Your task to perform on an android device: turn on priority inbox in the gmail app Image 0: 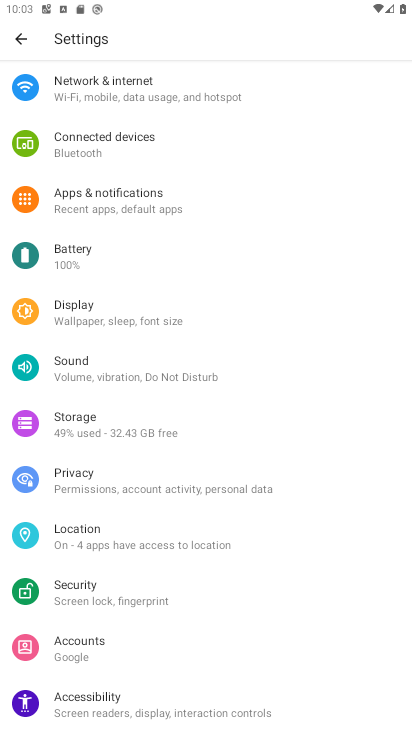
Step 0: press home button
Your task to perform on an android device: turn on priority inbox in the gmail app Image 1: 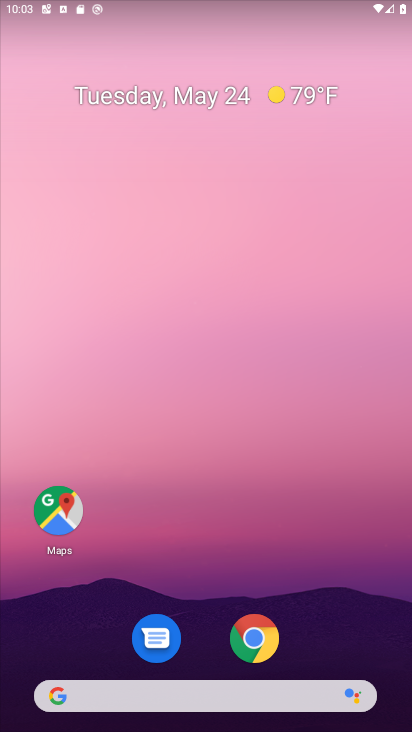
Step 1: drag from (250, 720) to (228, 5)
Your task to perform on an android device: turn on priority inbox in the gmail app Image 2: 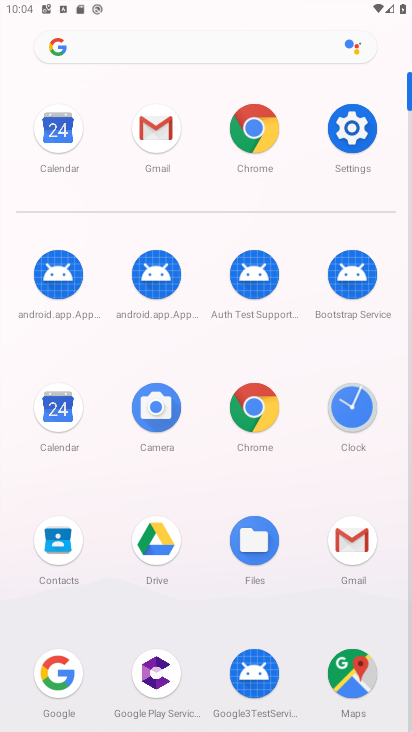
Step 2: click (351, 551)
Your task to perform on an android device: turn on priority inbox in the gmail app Image 3: 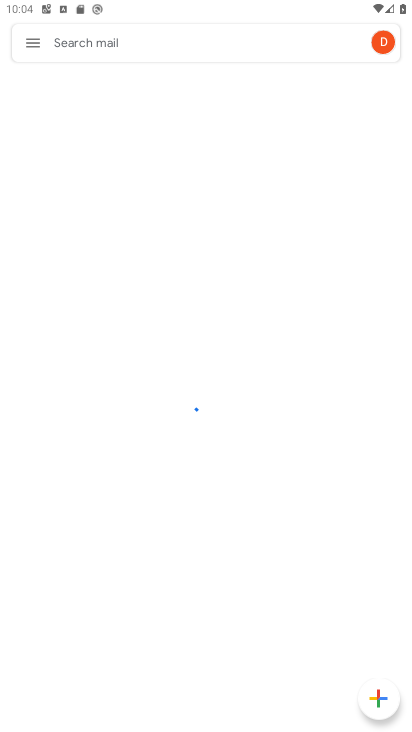
Step 3: click (30, 46)
Your task to perform on an android device: turn on priority inbox in the gmail app Image 4: 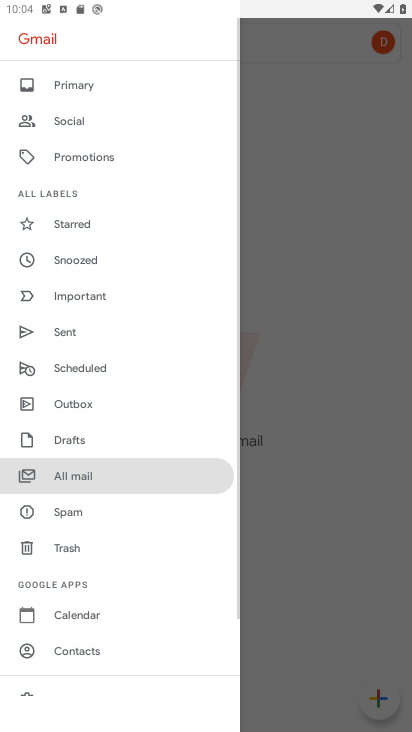
Step 4: drag from (114, 693) to (200, 4)
Your task to perform on an android device: turn on priority inbox in the gmail app Image 5: 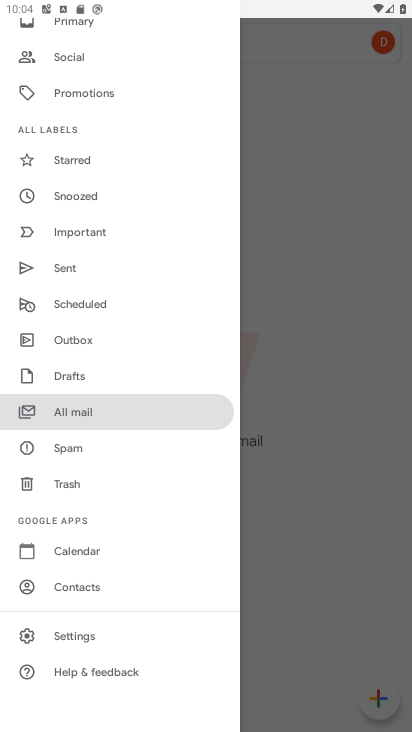
Step 5: click (66, 636)
Your task to perform on an android device: turn on priority inbox in the gmail app Image 6: 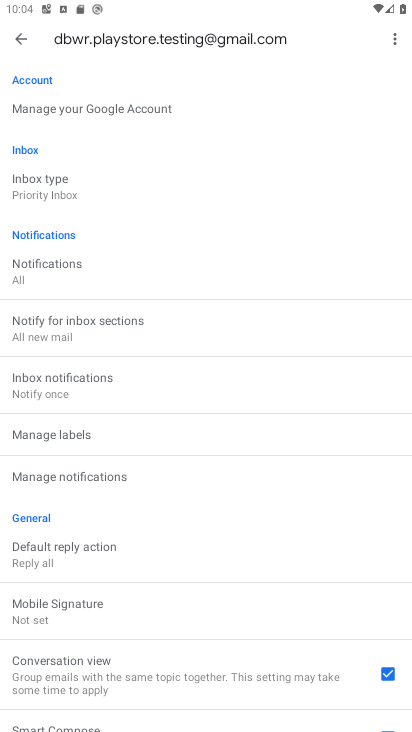
Step 6: click (50, 182)
Your task to perform on an android device: turn on priority inbox in the gmail app Image 7: 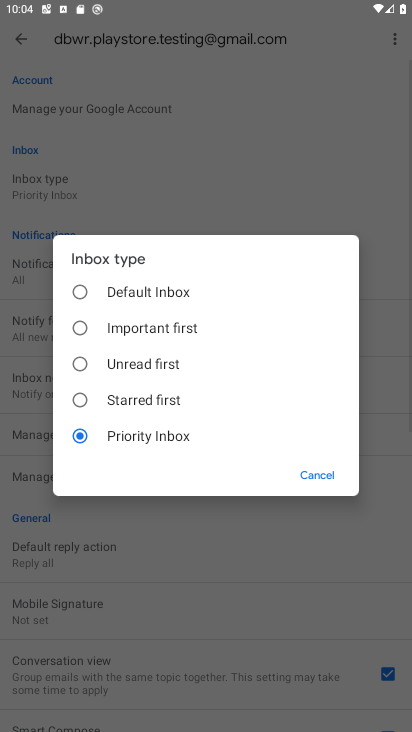
Step 7: task complete